Your task to perform on an android device: Search for acer nitro on bestbuy.com, select the first entry, add it to the cart, then select checkout. Image 0: 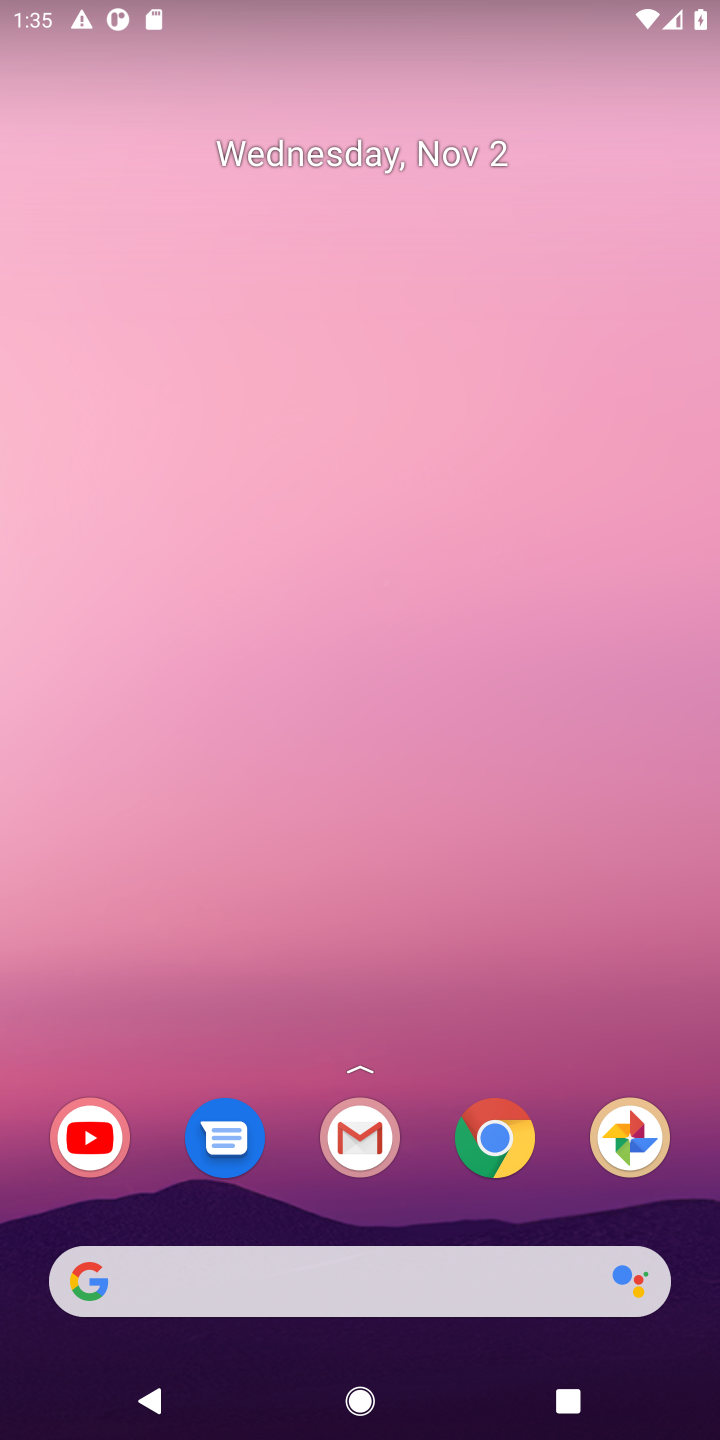
Step 0: press home button
Your task to perform on an android device: Search for acer nitro on bestbuy.com, select the first entry, add it to the cart, then select checkout. Image 1: 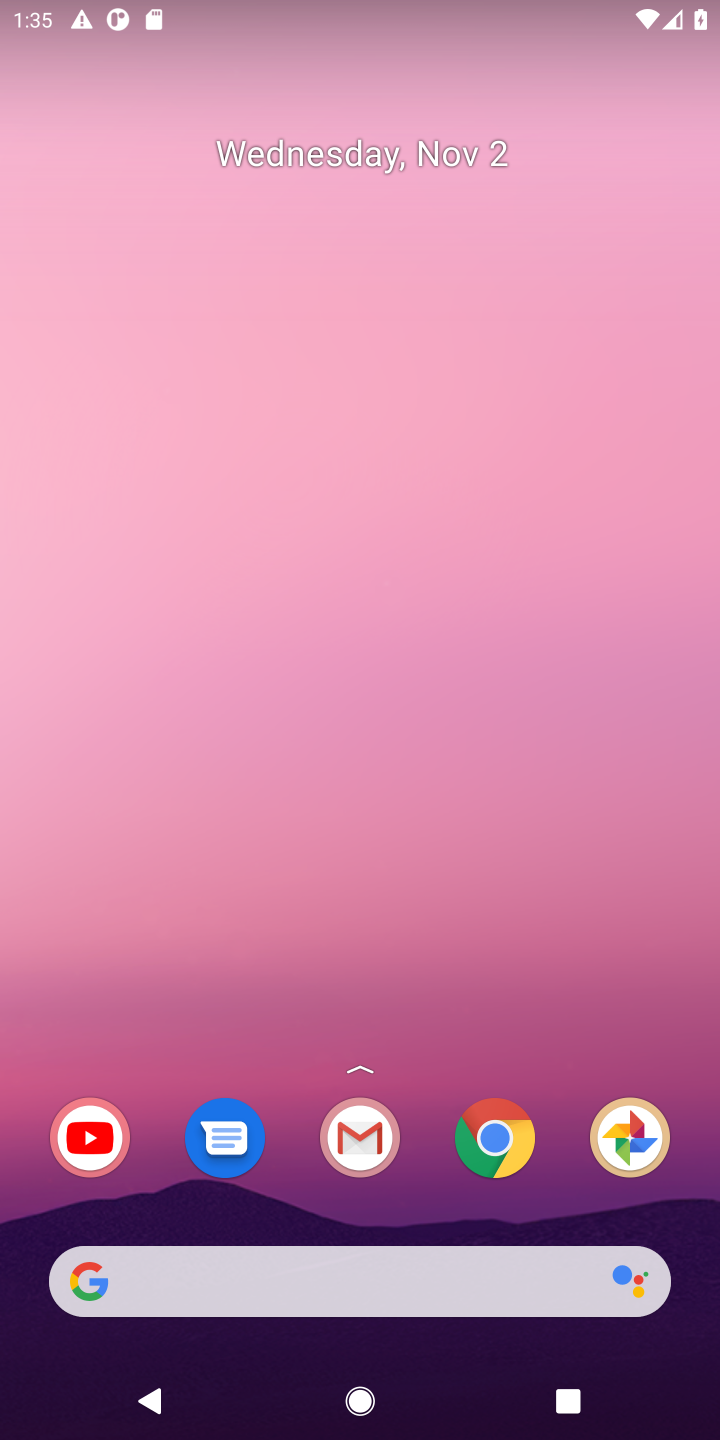
Step 1: click (145, 1284)
Your task to perform on an android device: Search for acer nitro on bestbuy.com, select the first entry, add it to the cart, then select checkout. Image 2: 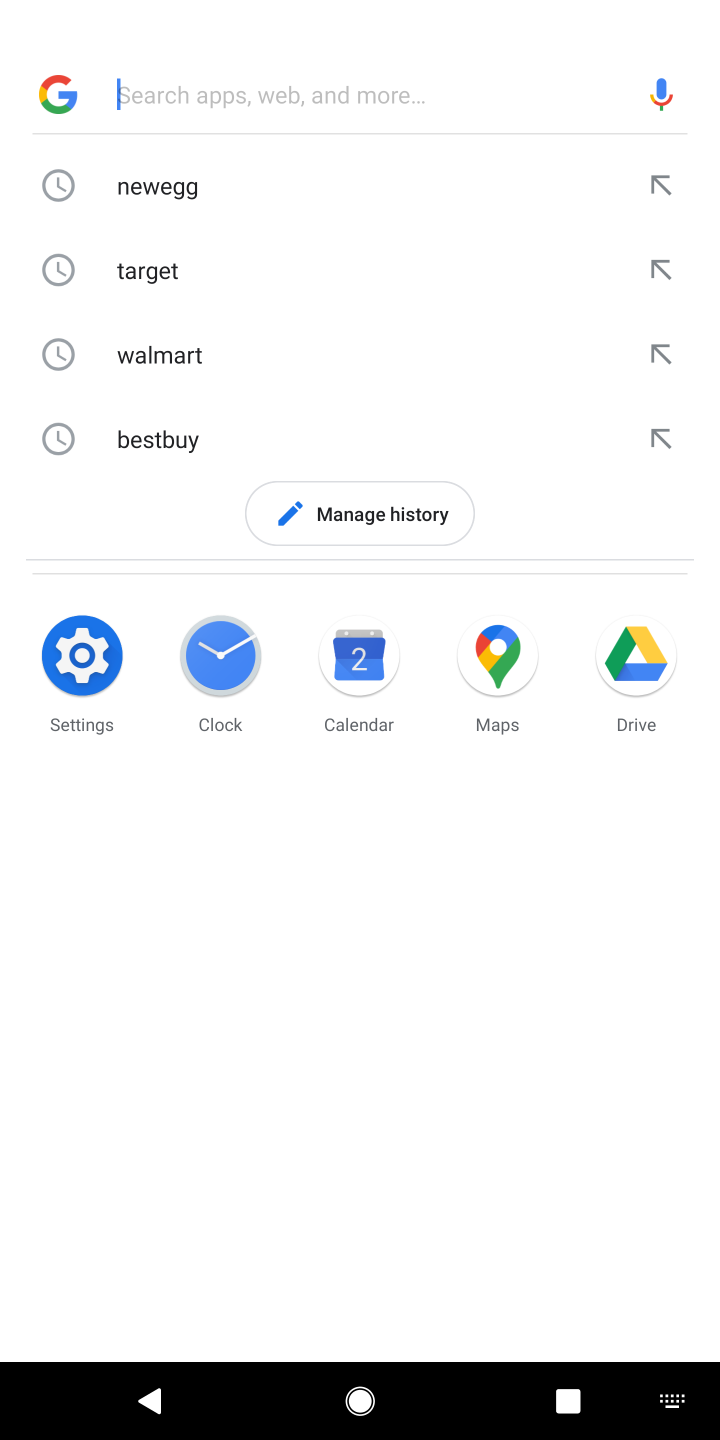
Step 2: type "bestbuy.com"
Your task to perform on an android device: Search for acer nitro on bestbuy.com, select the first entry, add it to the cart, then select checkout. Image 3: 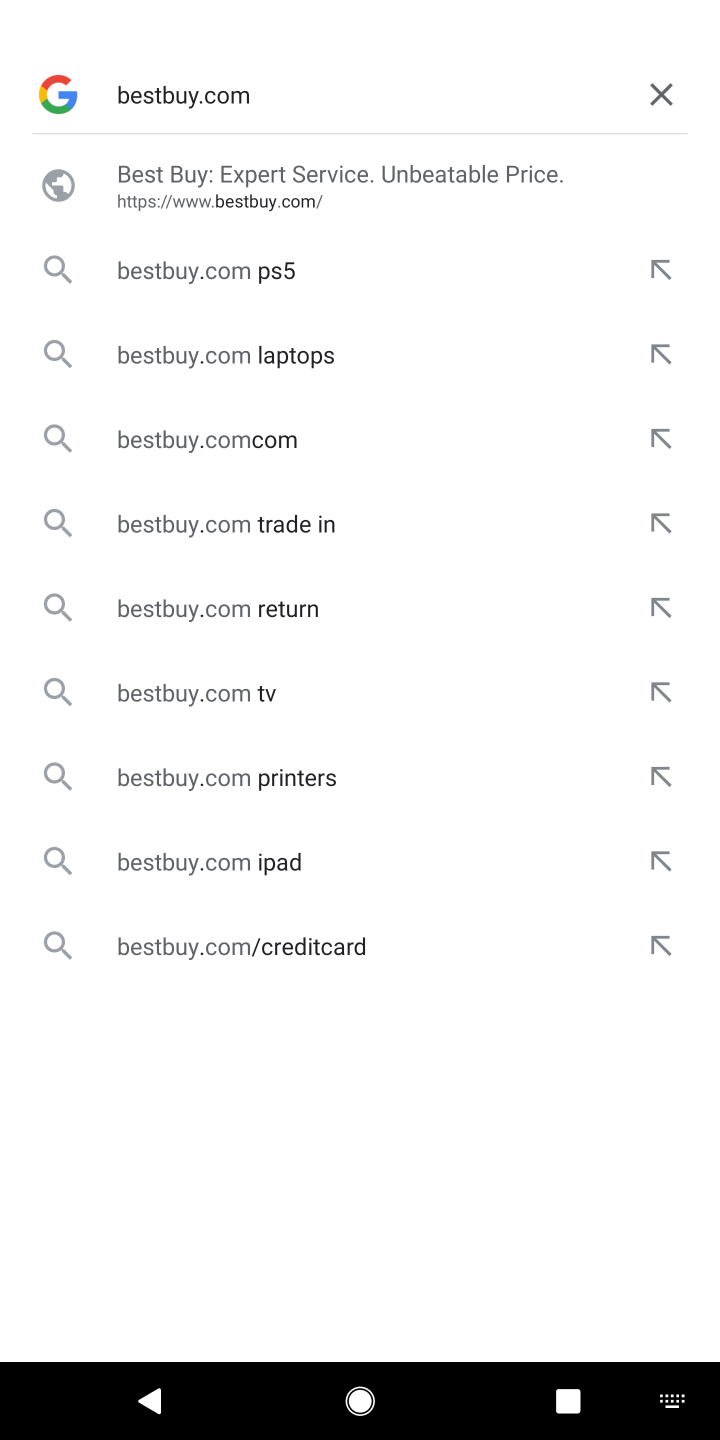
Step 3: press enter
Your task to perform on an android device: Search for acer nitro on bestbuy.com, select the first entry, add it to the cart, then select checkout. Image 4: 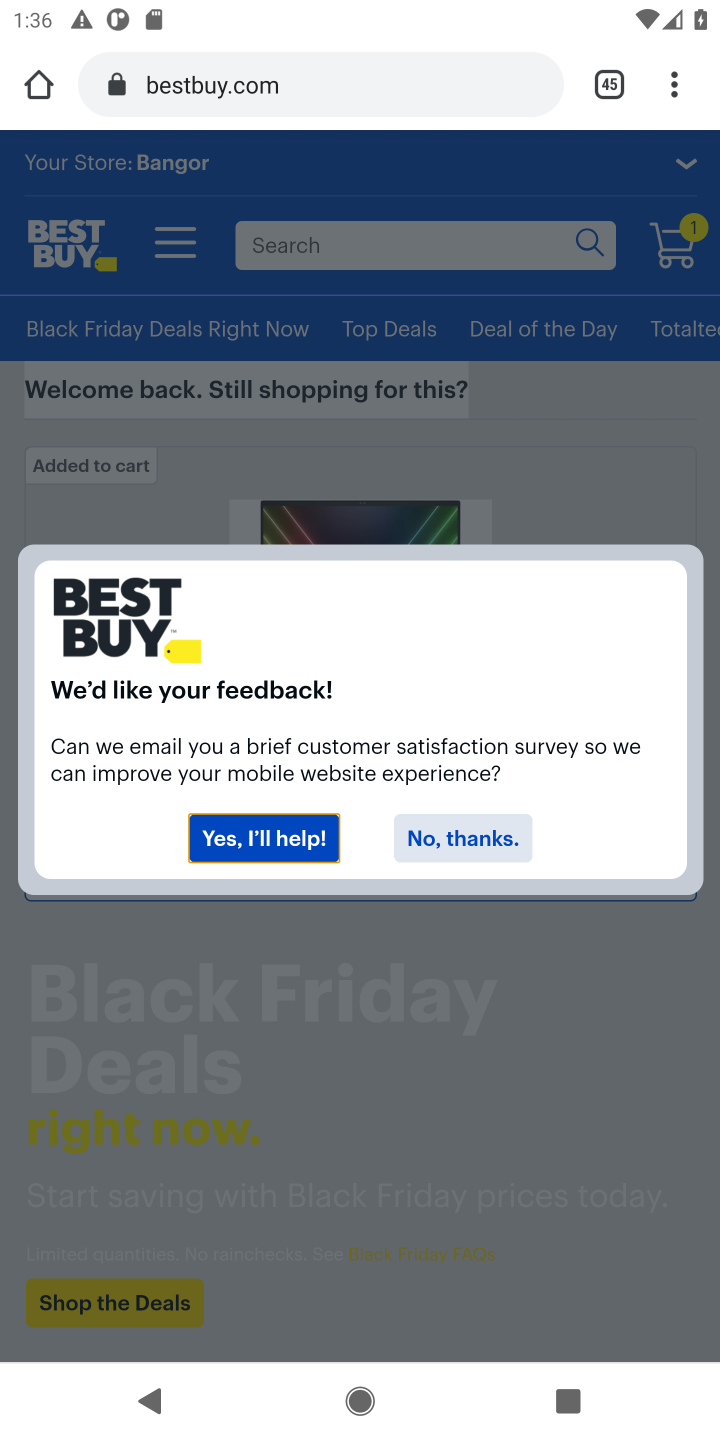
Step 4: click (440, 844)
Your task to perform on an android device: Search for acer nitro on bestbuy.com, select the first entry, add it to the cart, then select checkout. Image 5: 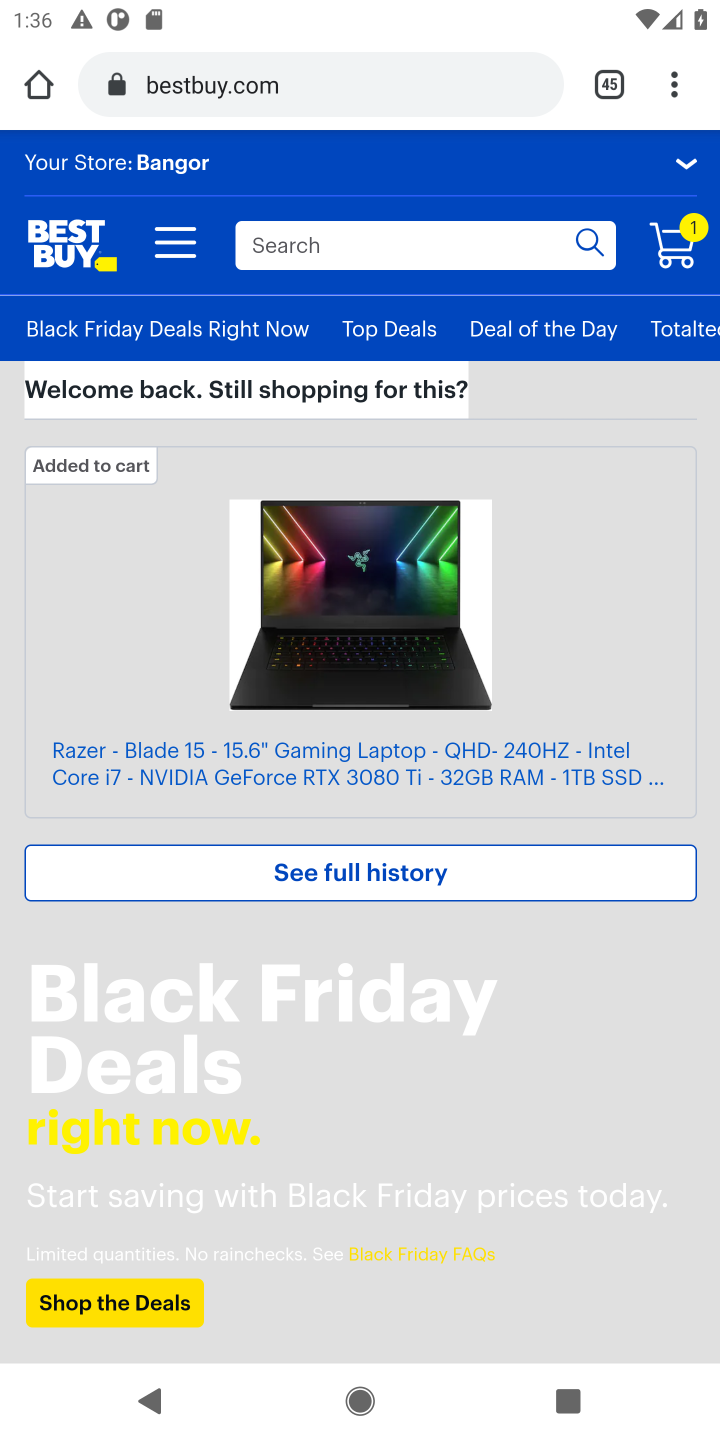
Step 5: click (281, 245)
Your task to perform on an android device: Search for acer nitro on bestbuy.com, select the first entry, add it to the cart, then select checkout. Image 6: 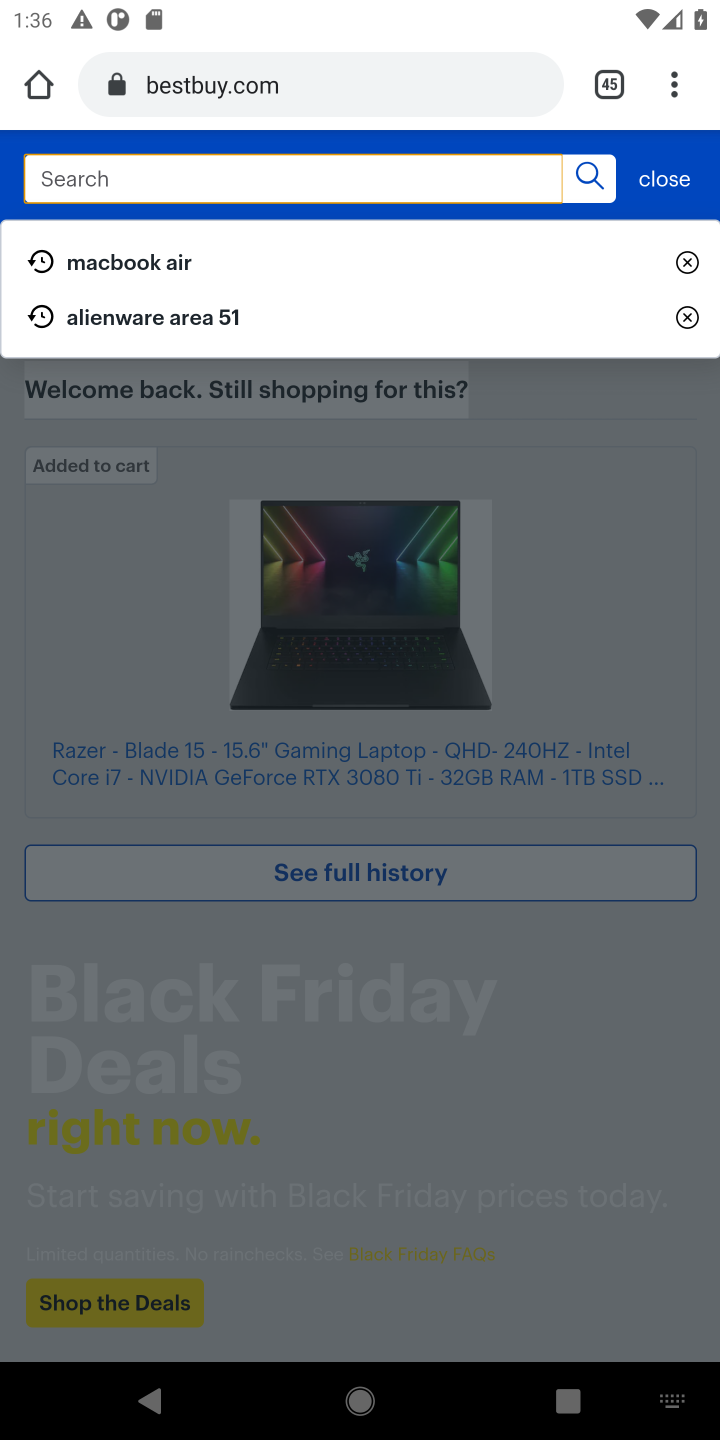
Step 6: type "acer nitro"
Your task to perform on an android device: Search for acer nitro on bestbuy.com, select the first entry, add it to the cart, then select checkout. Image 7: 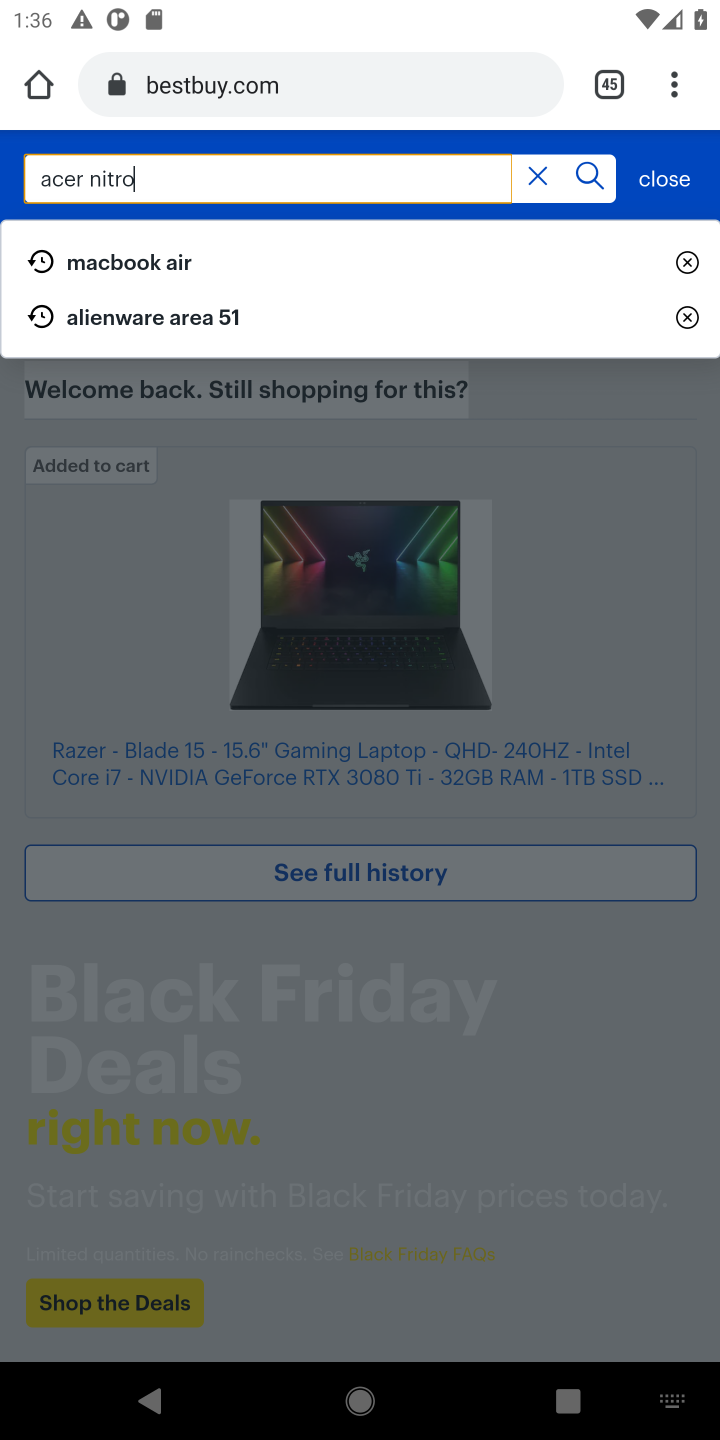
Step 7: press enter
Your task to perform on an android device: Search for acer nitro on bestbuy.com, select the first entry, add it to the cart, then select checkout. Image 8: 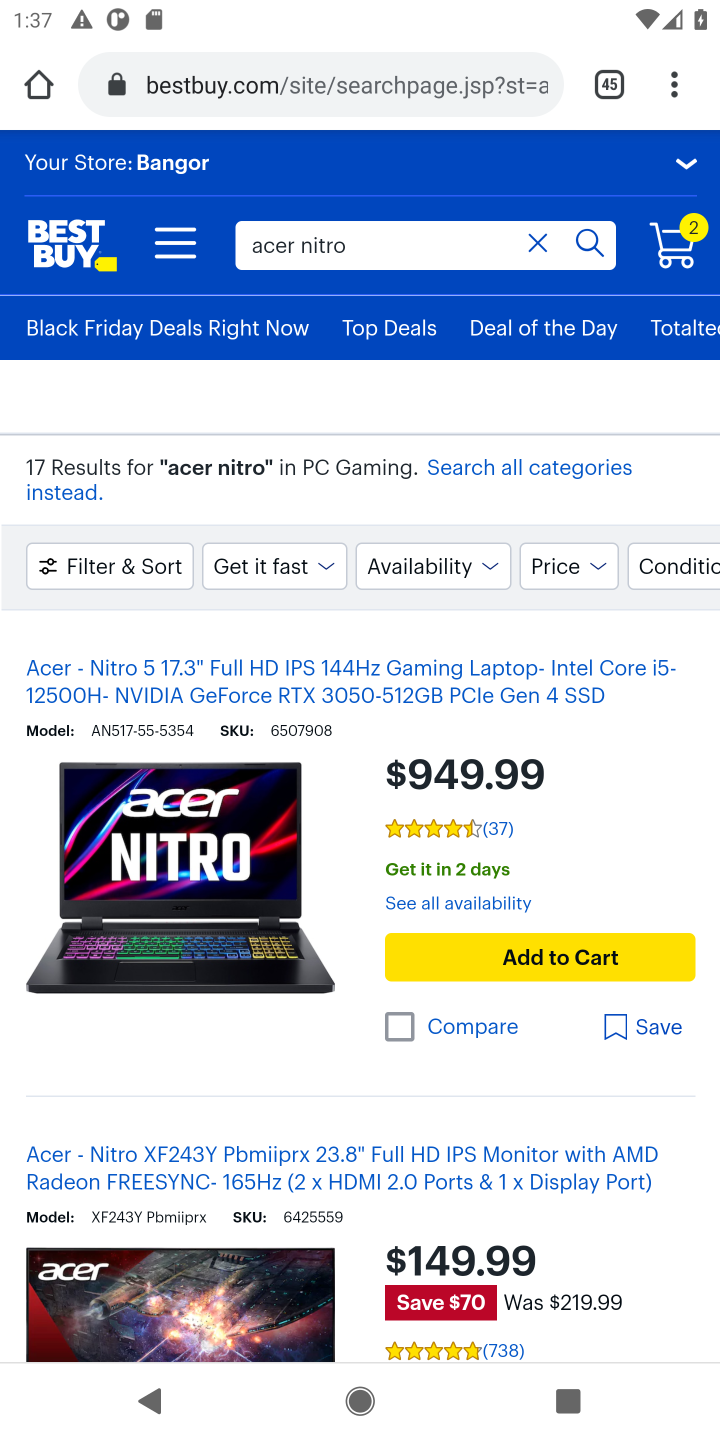
Step 8: click (535, 956)
Your task to perform on an android device: Search for acer nitro on bestbuy.com, select the first entry, add it to the cart, then select checkout. Image 9: 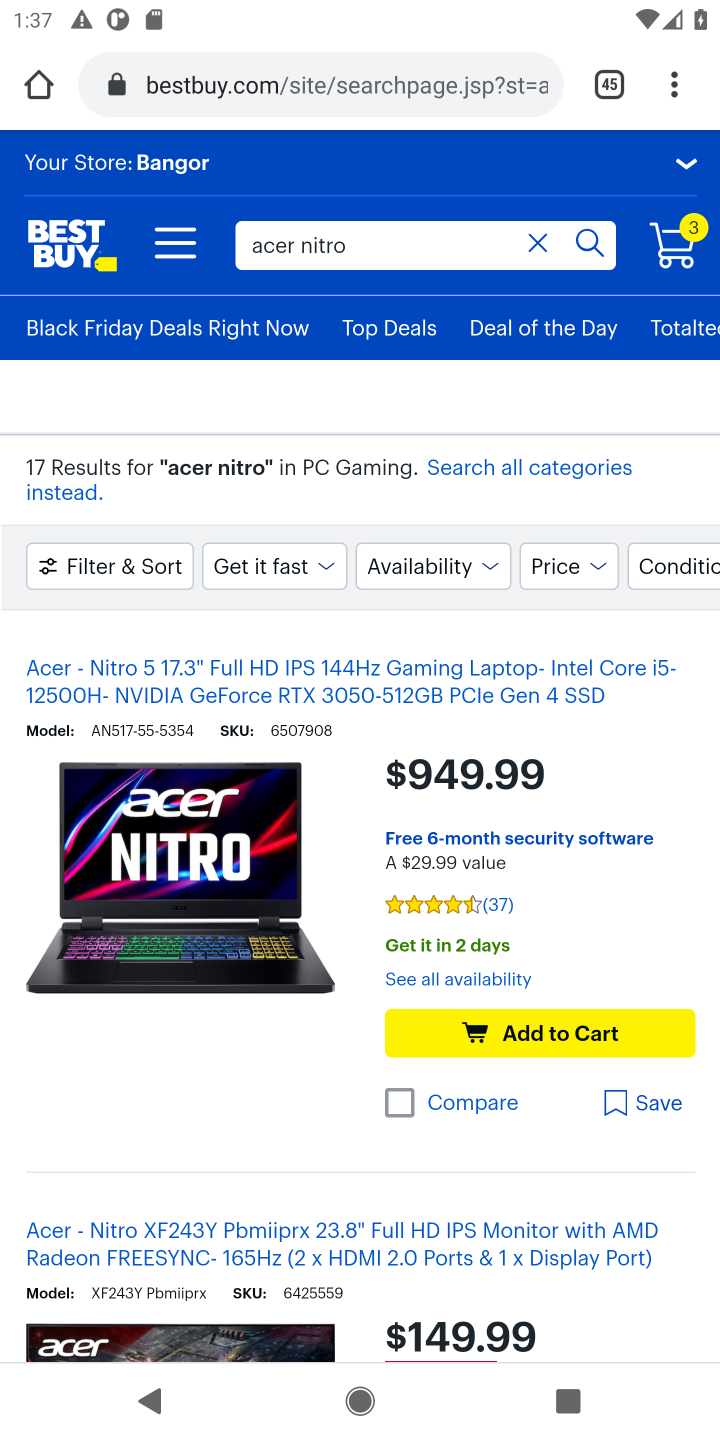
Step 9: click (683, 249)
Your task to perform on an android device: Search for acer nitro on bestbuy.com, select the first entry, add it to the cart, then select checkout. Image 10: 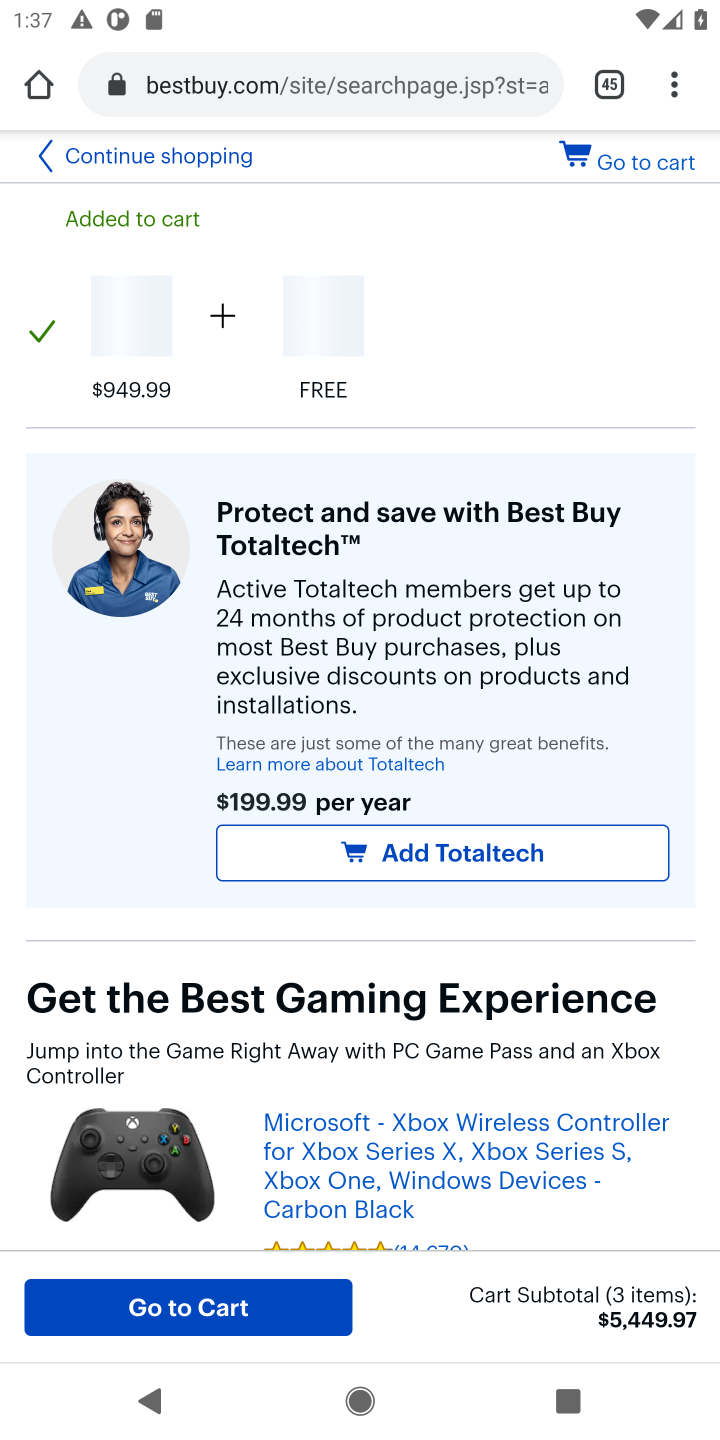
Step 10: click (171, 1296)
Your task to perform on an android device: Search for acer nitro on bestbuy.com, select the first entry, add it to the cart, then select checkout. Image 11: 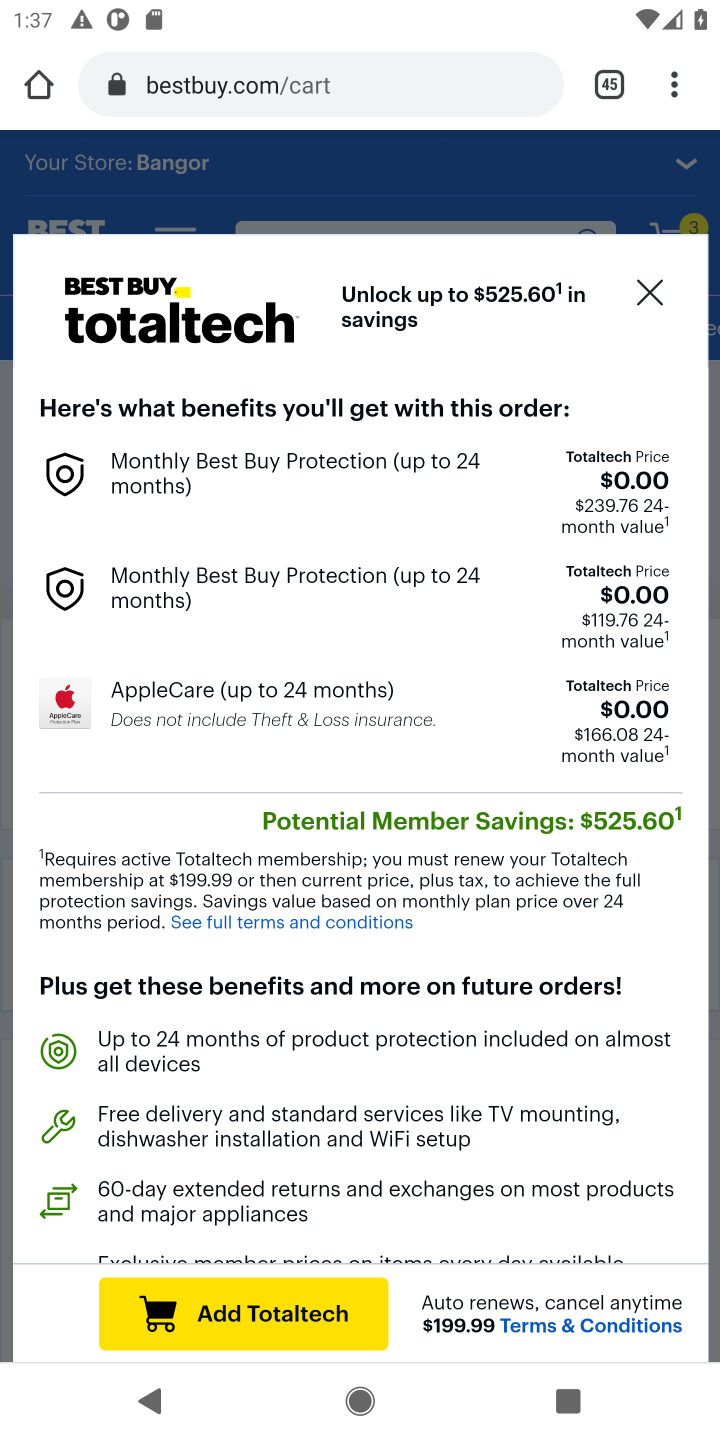
Step 11: click (645, 296)
Your task to perform on an android device: Search for acer nitro on bestbuy.com, select the first entry, add it to the cart, then select checkout. Image 12: 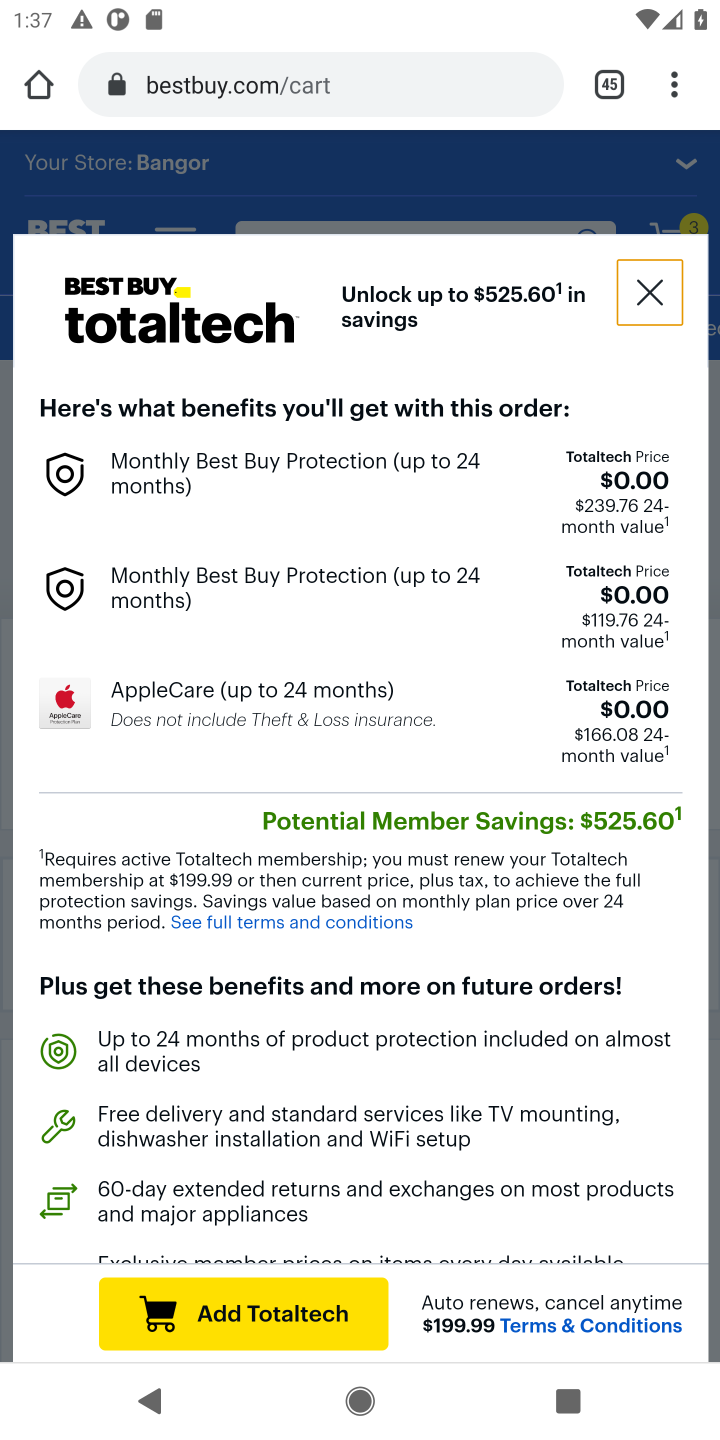
Step 12: click (663, 293)
Your task to perform on an android device: Search for acer nitro on bestbuy.com, select the first entry, add it to the cart, then select checkout. Image 13: 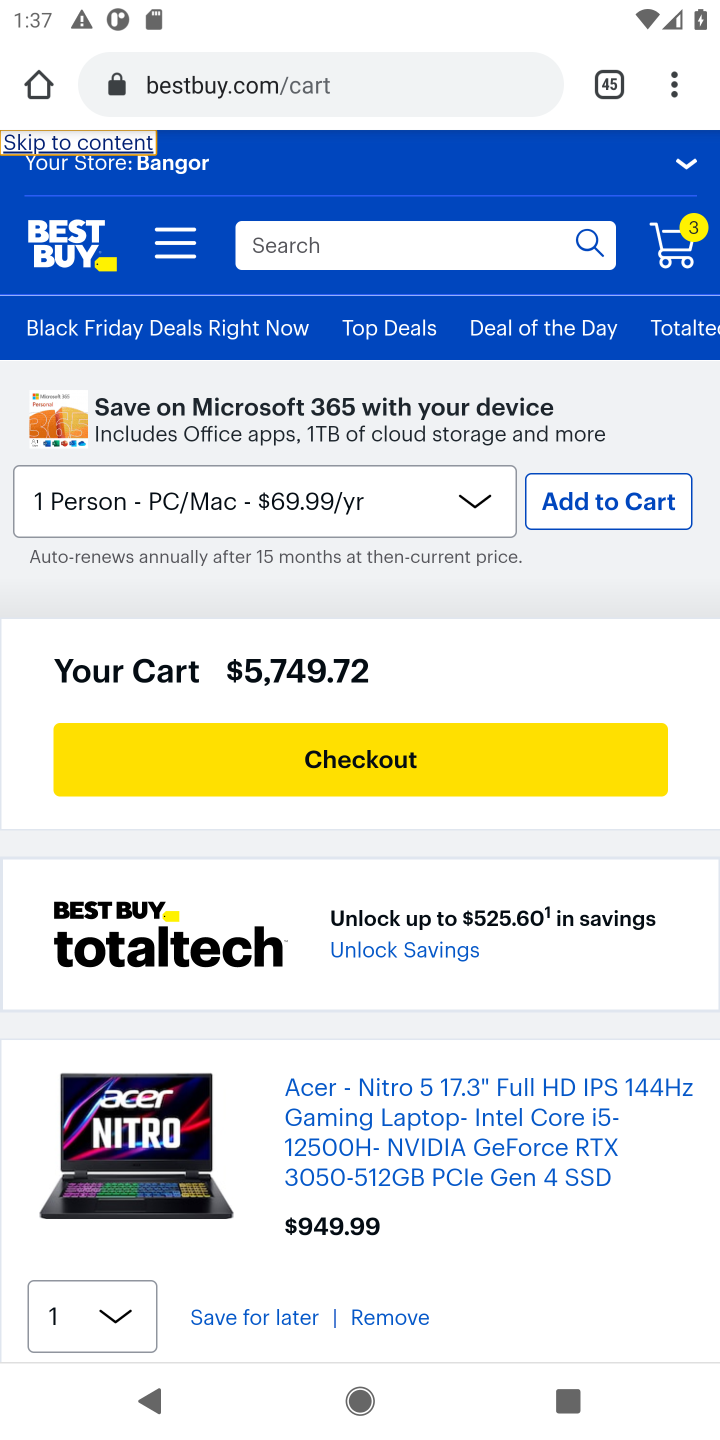
Step 13: click (356, 771)
Your task to perform on an android device: Search for acer nitro on bestbuy.com, select the first entry, add it to the cart, then select checkout. Image 14: 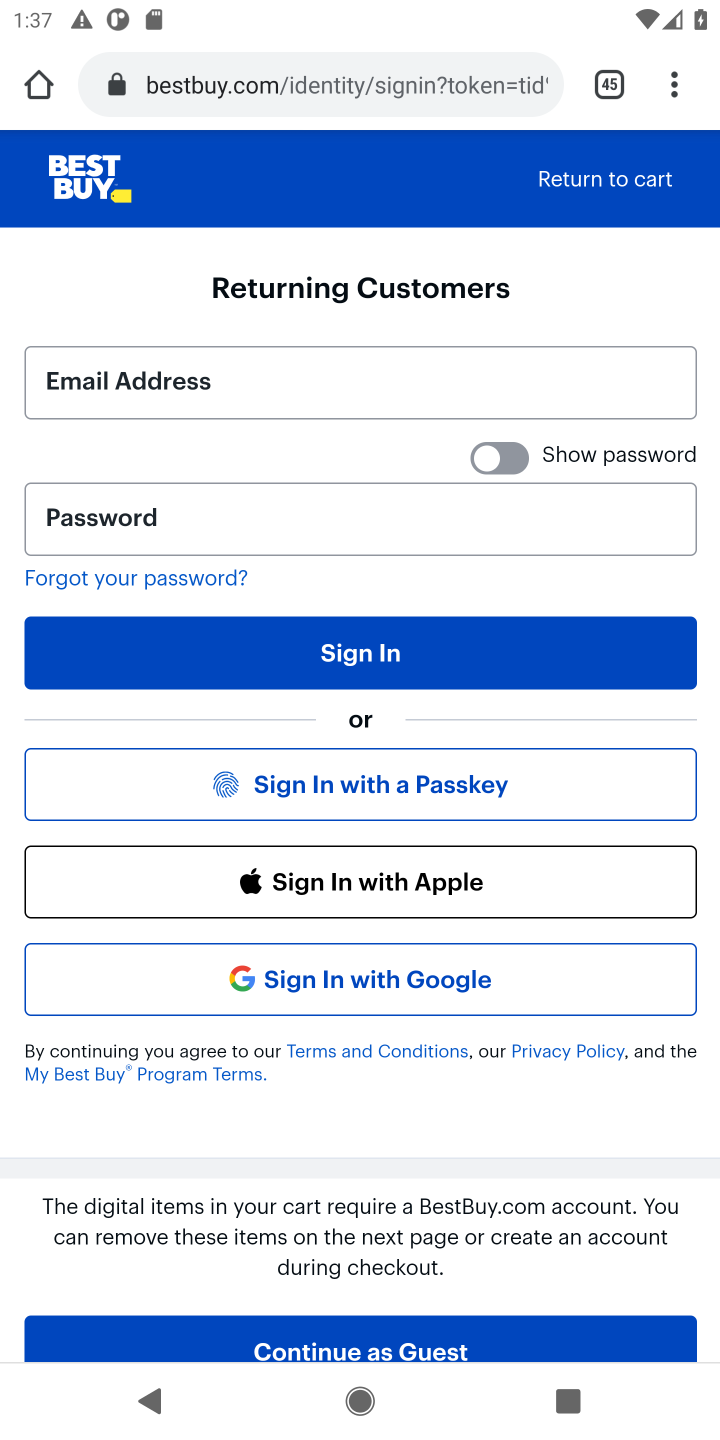
Step 14: task complete